Your task to perform on an android device: turn on location history Image 0: 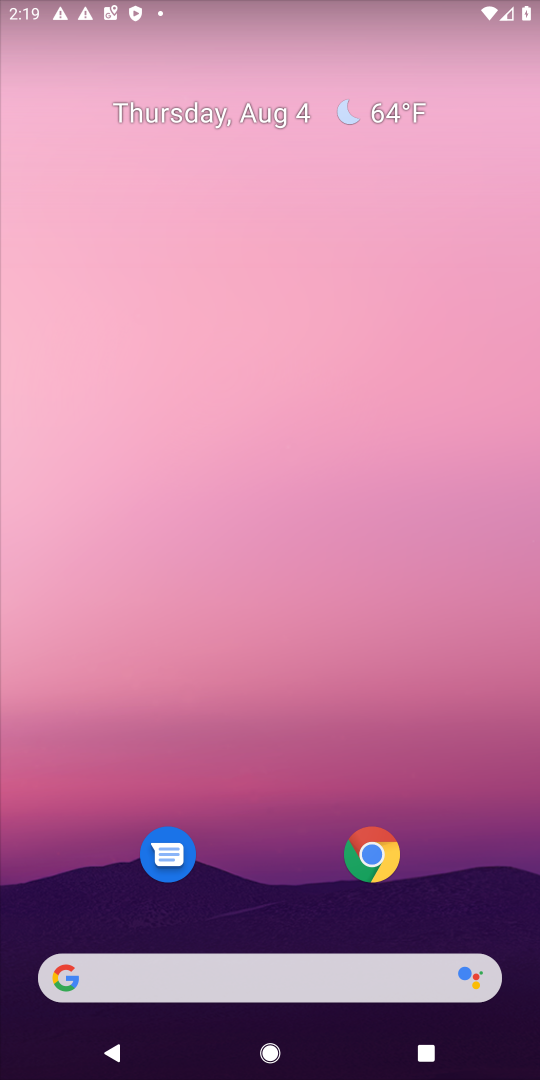
Step 0: drag from (262, 815) to (282, 121)
Your task to perform on an android device: turn on location history Image 1: 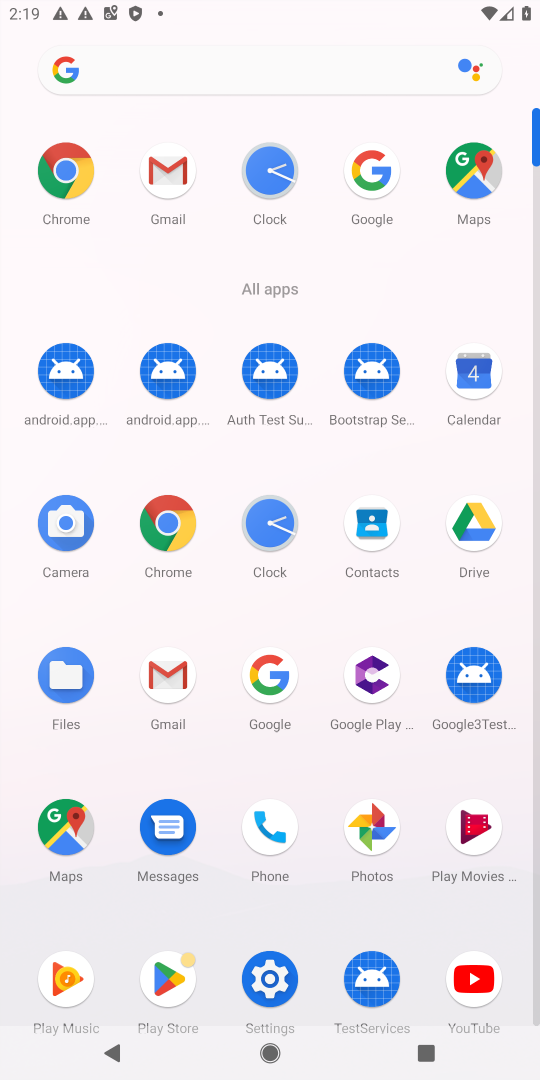
Step 1: click (283, 964)
Your task to perform on an android device: turn on location history Image 2: 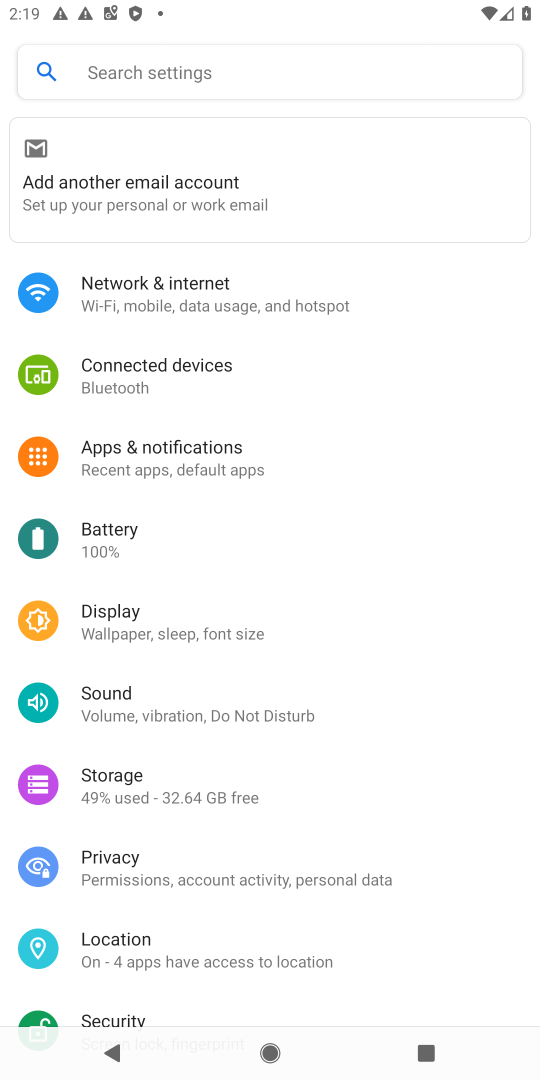
Step 2: click (95, 945)
Your task to perform on an android device: turn on location history Image 3: 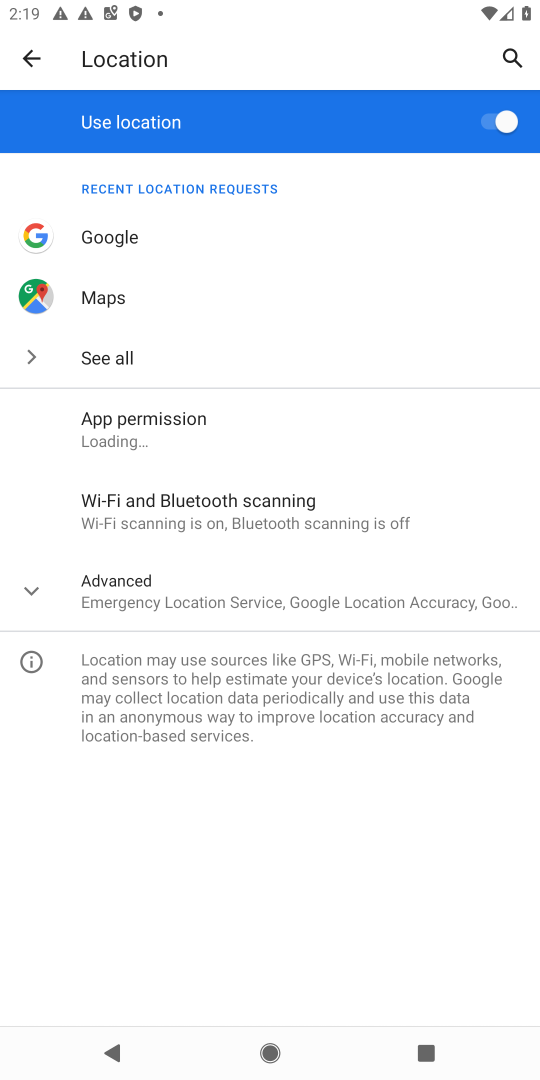
Step 3: click (121, 578)
Your task to perform on an android device: turn on location history Image 4: 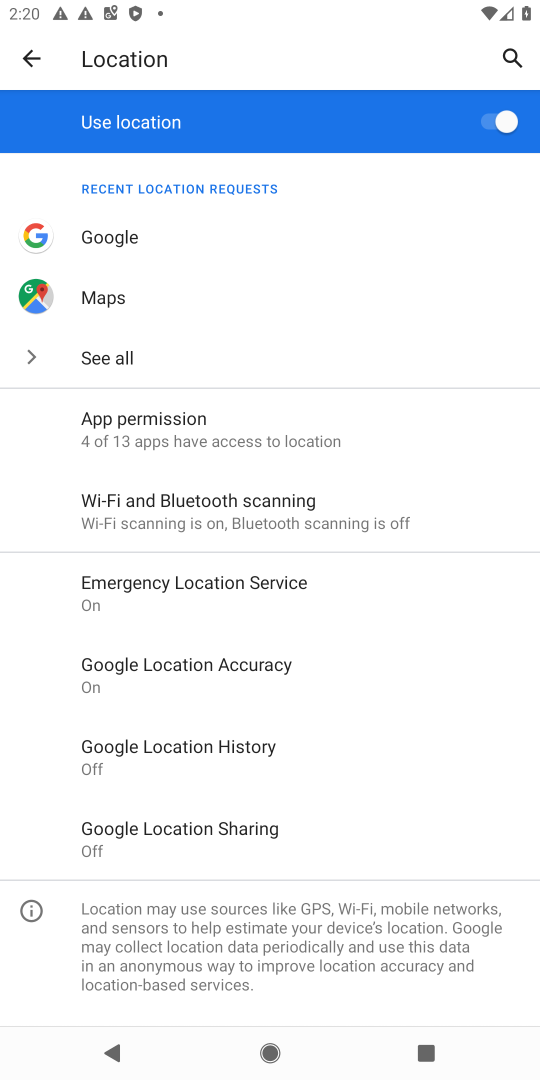
Step 4: click (249, 745)
Your task to perform on an android device: turn on location history Image 5: 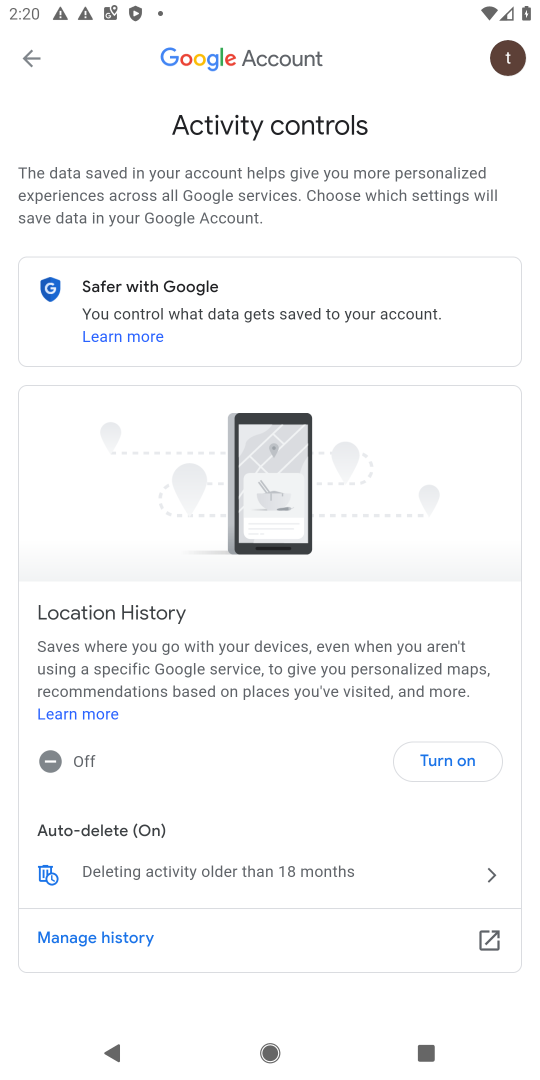
Step 5: click (439, 767)
Your task to perform on an android device: turn on location history Image 6: 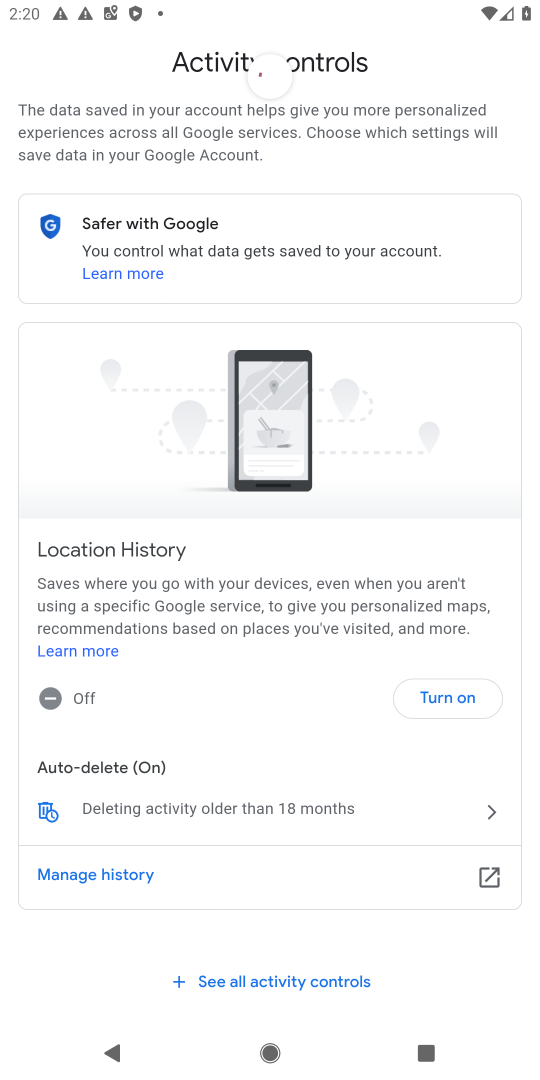
Step 6: click (470, 986)
Your task to perform on an android device: turn on location history Image 7: 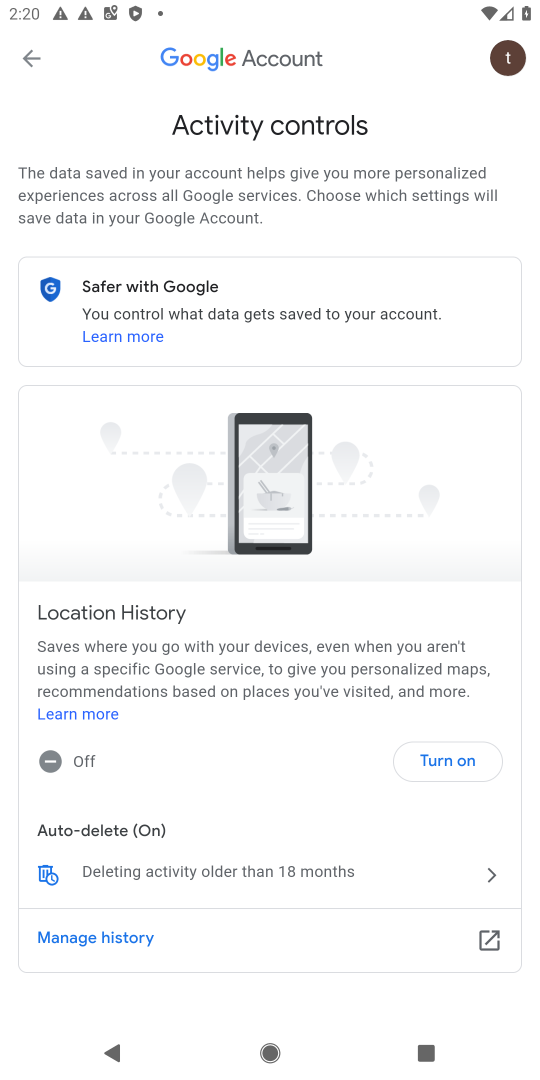
Step 7: click (448, 765)
Your task to perform on an android device: turn on location history Image 8: 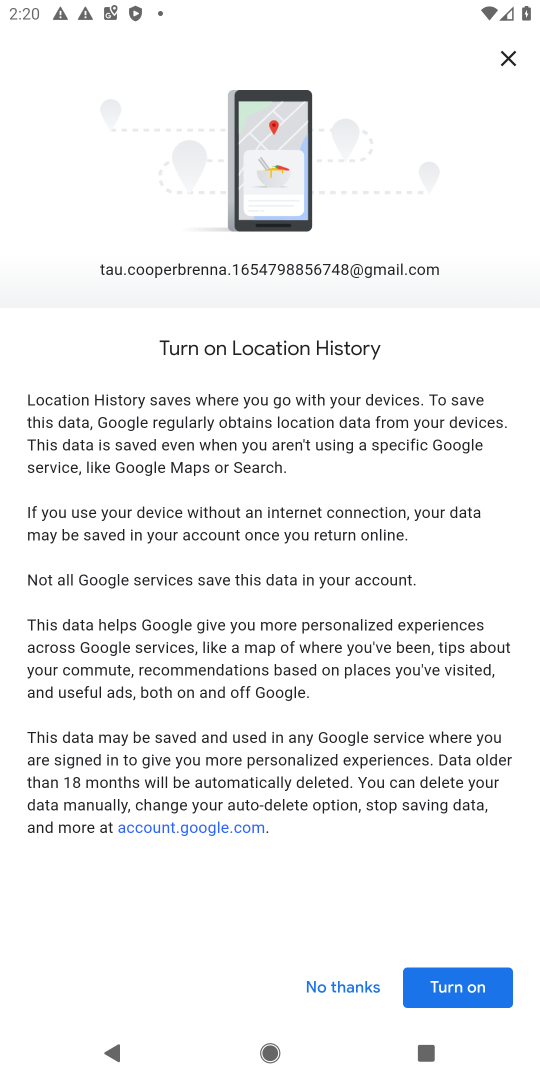
Step 8: click (462, 981)
Your task to perform on an android device: turn on location history Image 9: 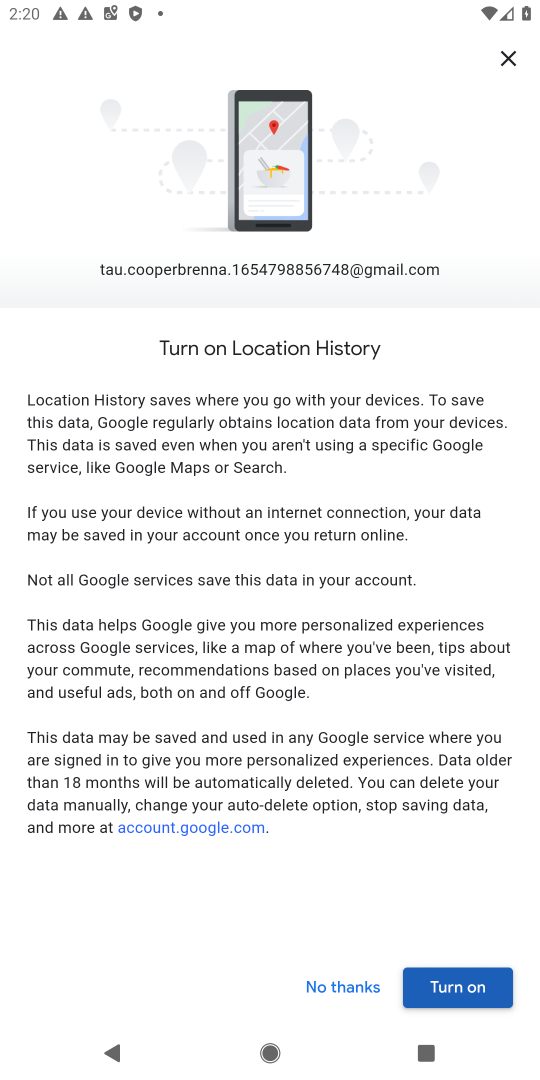
Step 9: click (446, 985)
Your task to perform on an android device: turn on location history Image 10: 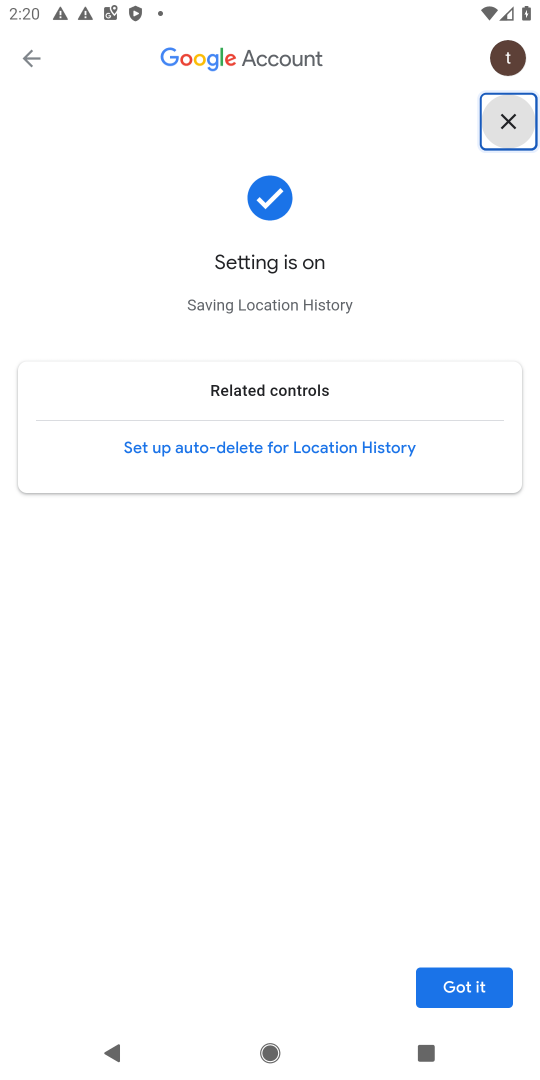
Step 10: click (466, 981)
Your task to perform on an android device: turn on location history Image 11: 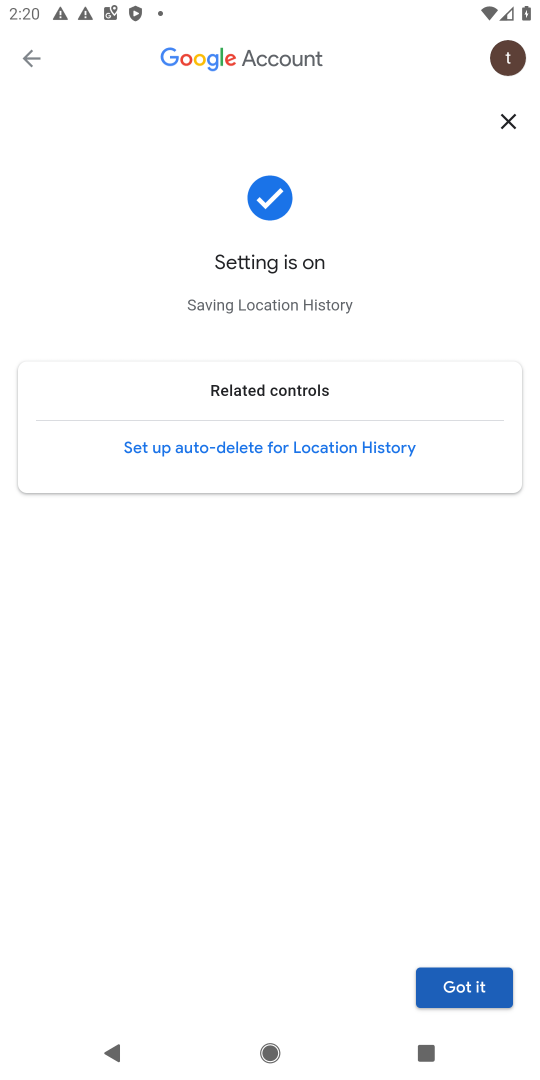
Step 11: click (470, 993)
Your task to perform on an android device: turn on location history Image 12: 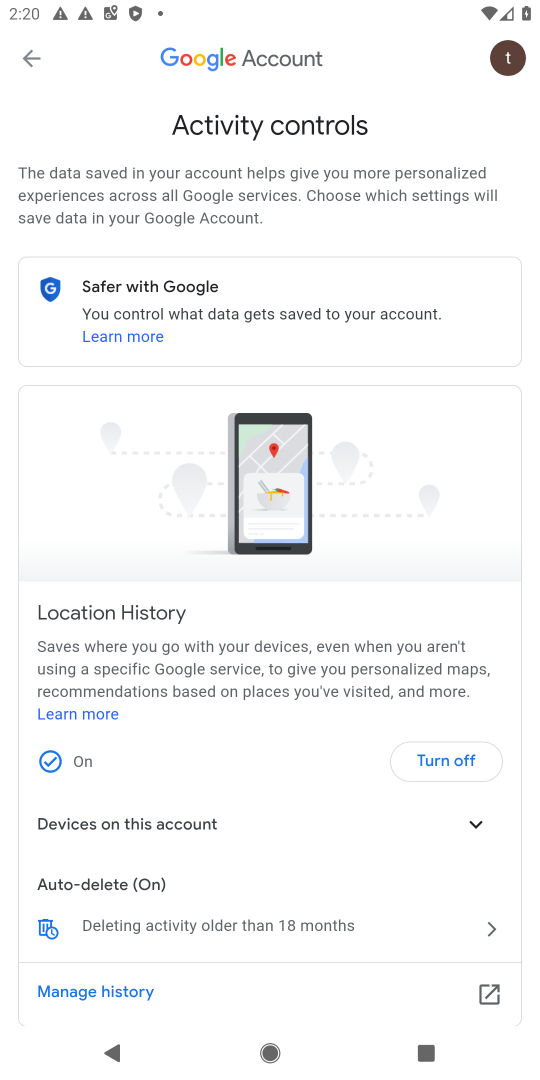
Step 12: task complete